Your task to perform on an android device: Open network settings Image 0: 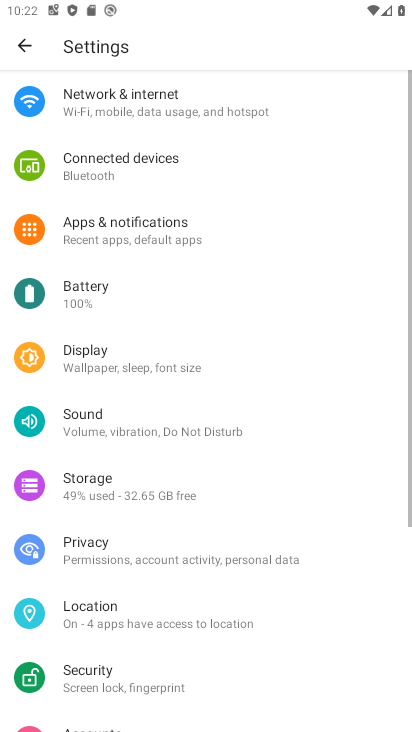
Step 0: click (133, 107)
Your task to perform on an android device: Open network settings Image 1: 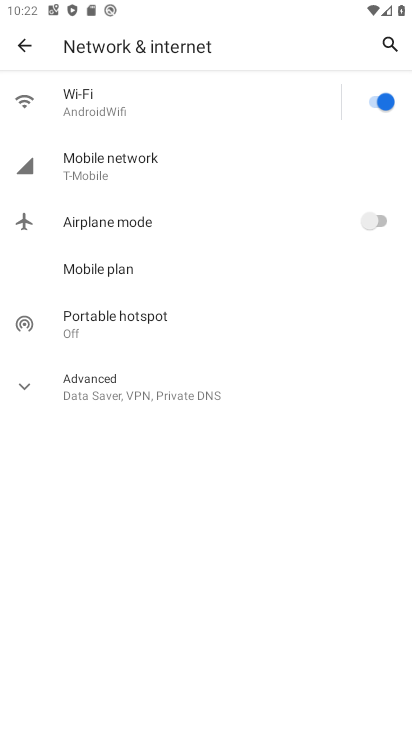
Step 1: click (126, 164)
Your task to perform on an android device: Open network settings Image 2: 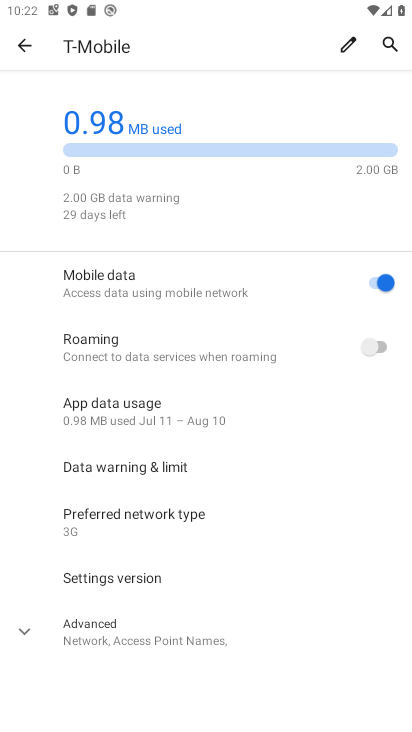
Step 2: task complete